Your task to perform on an android device: Go to Google Image 0: 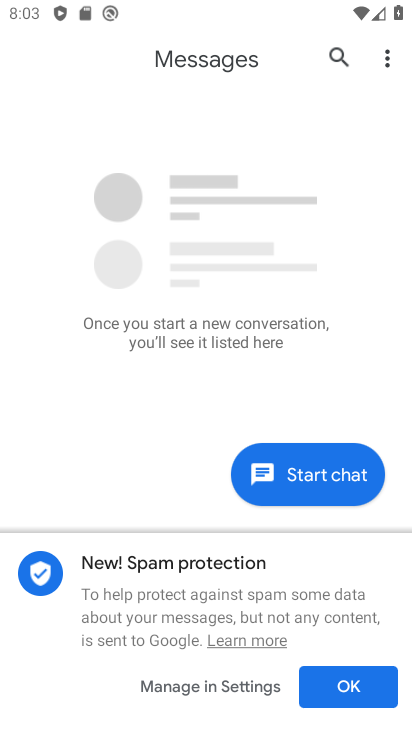
Step 0: press home button
Your task to perform on an android device: Go to Google Image 1: 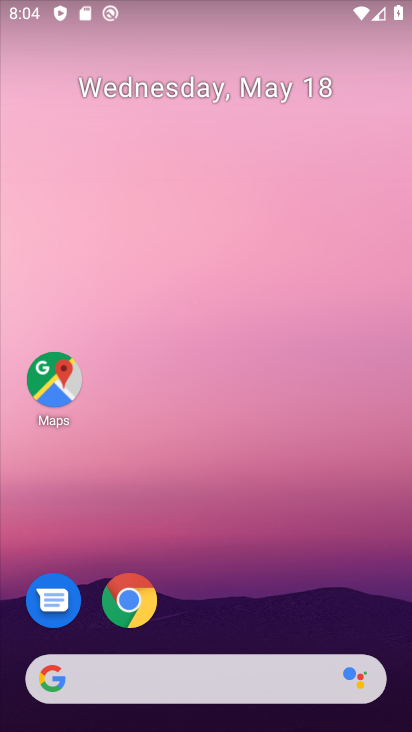
Step 1: click (62, 676)
Your task to perform on an android device: Go to Google Image 2: 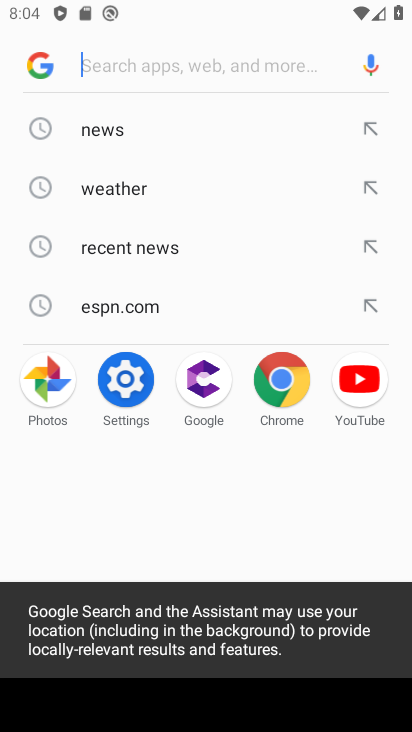
Step 2: click (41, 65)
Your task to perform on an android device: Go to Google Image 3: 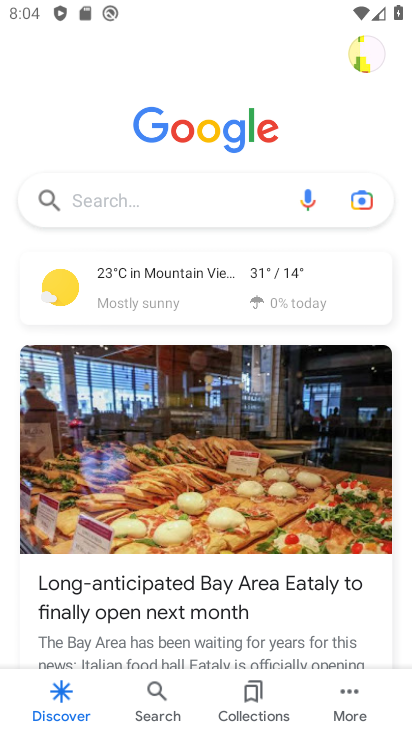
Step 3: task complete